Your task to perform on an android device: check out phone information Image 0: 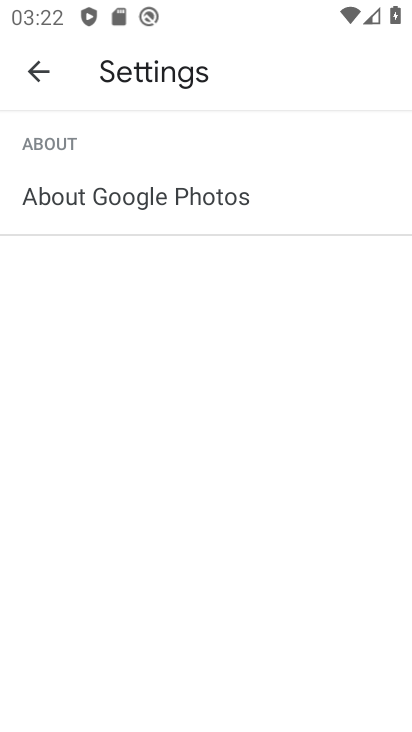
Step 0: press home button
Your task to perform on an android device: check out phone information Image 1: 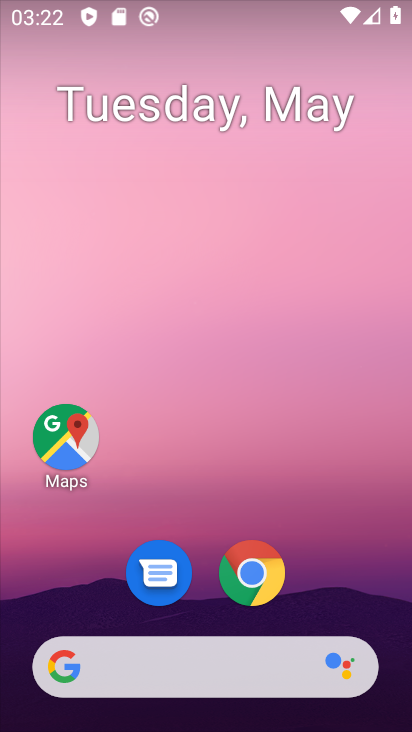
Step 1: drag from (184, 521) to (255, 8)
Your task to perform on an android device: check out phone information Image 2: 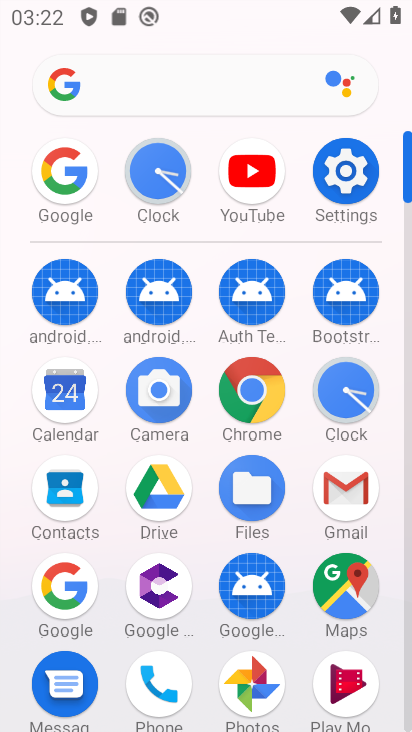
Step 2: click (339, 163)
Your task to perform on an android device: check out phone information Image 3: 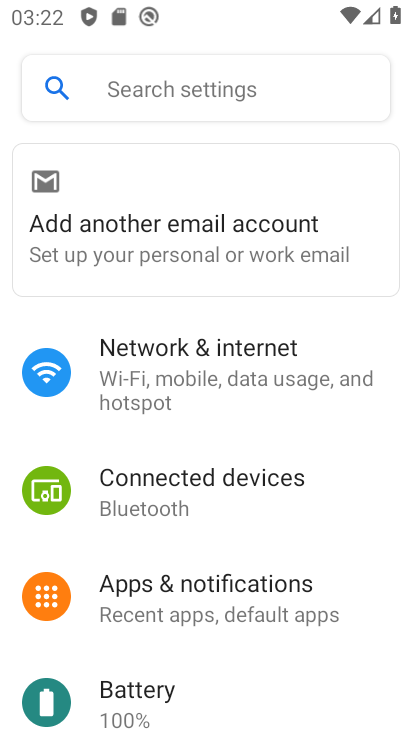
Step 3: drag from (183, 660) to (293, 106)
Your task to perform on an android device: check out phone information Image 4: 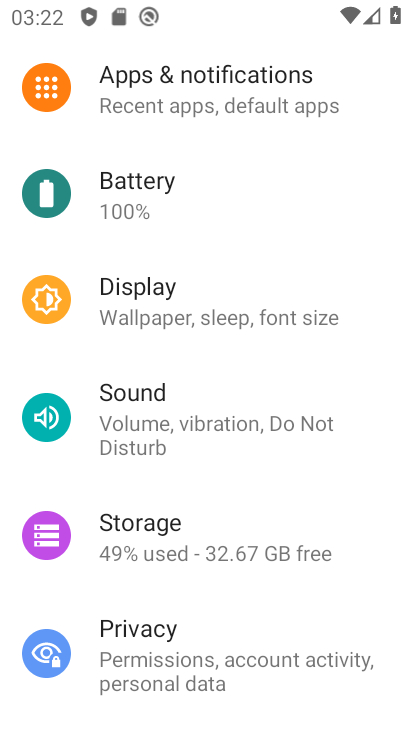
Step 4: drag from (179, 632) to (323, 32)
Your task to perform on an android device: check out phone information Image 5: 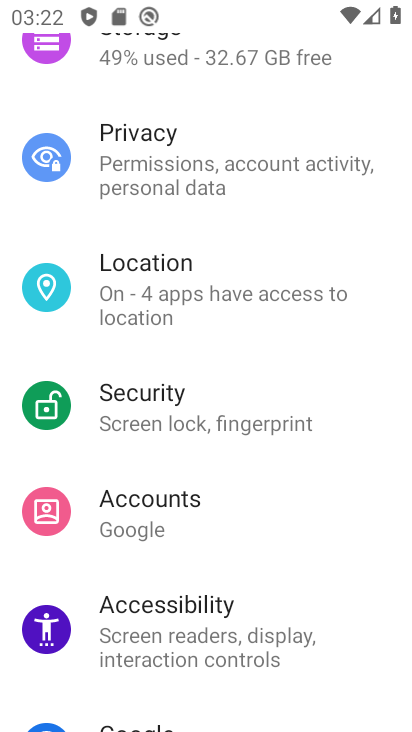
Step 5: drag from (158, 617) to (262, 14)
Your task to perform on an android device: check out phone information Image 6: 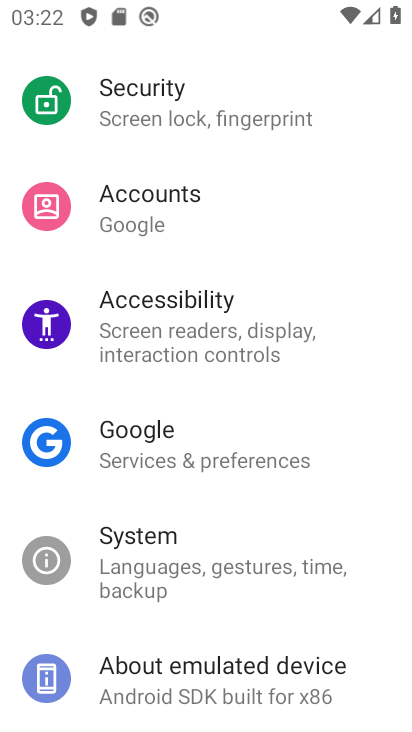
Step 6: drag from (224, 590) to (300, 52)
Your task to perform on an android device: check out phone information Image 7: 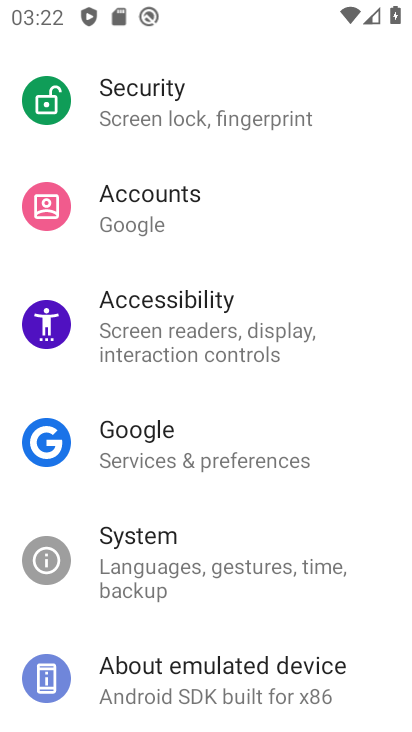
Step 7: drag from (180, 635) to (272, 39)
Your task to perform on an android device: check out phone information Image 8: 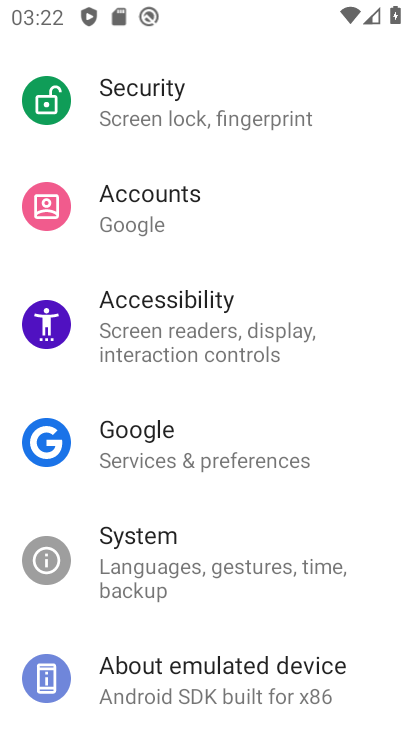
Step 8: click (215, 670)
Your task to perform on an android device: check out phone information Image 9: 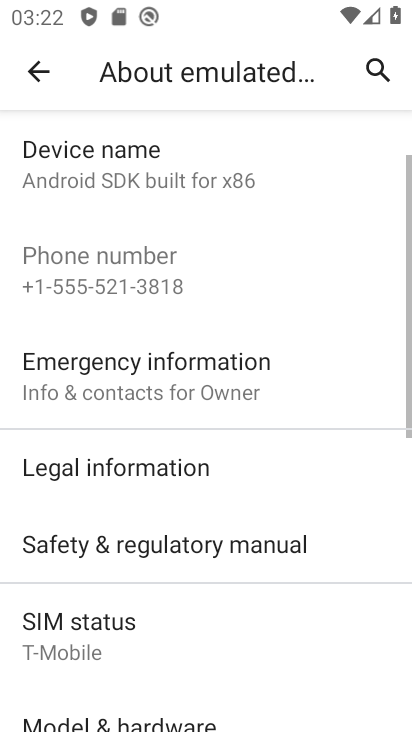
Step 9: task complete